Your task to perform on an android device: Add razer deathadder to the cart on bestbuy.com Image 0: 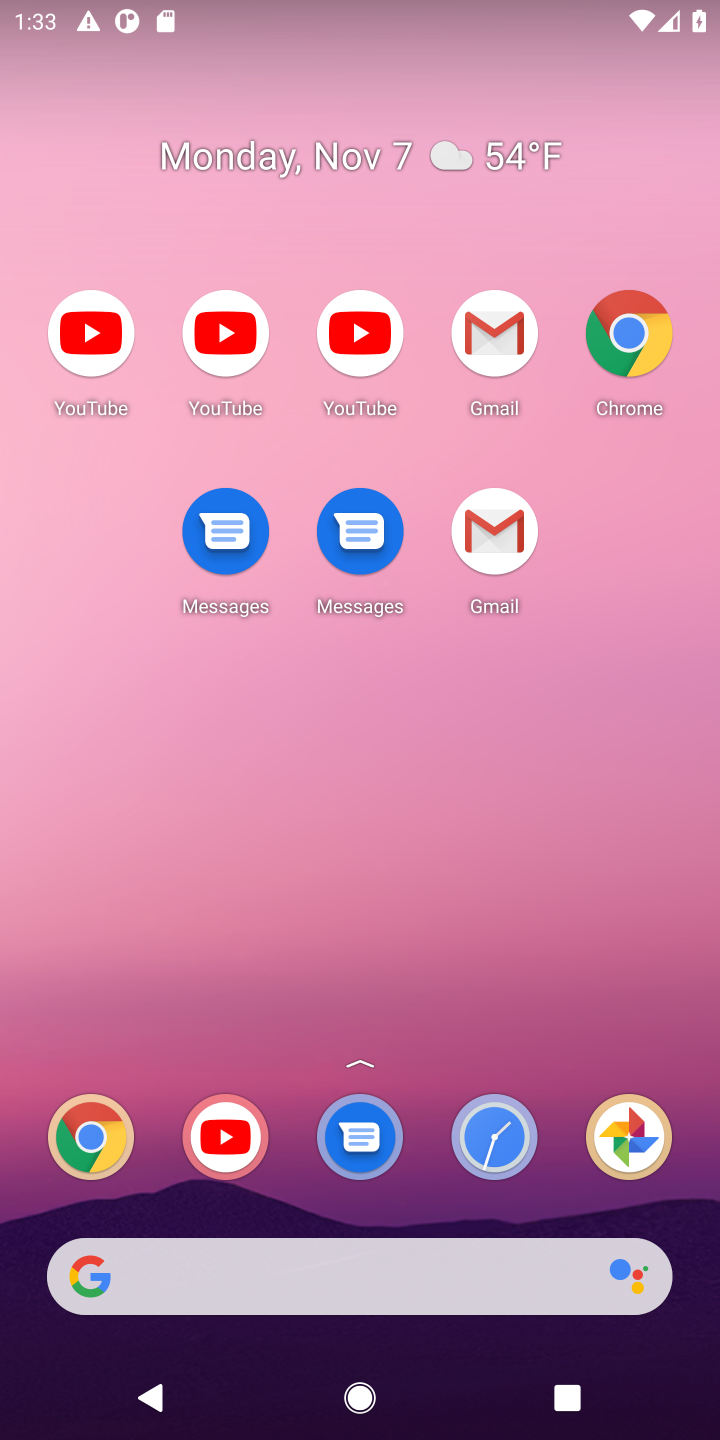
Step 0: drag from (431, 1108) to (436, 94)
Your task to perform on an android device: Add razer deathadder to the cart on bestbuy.com Image 1: 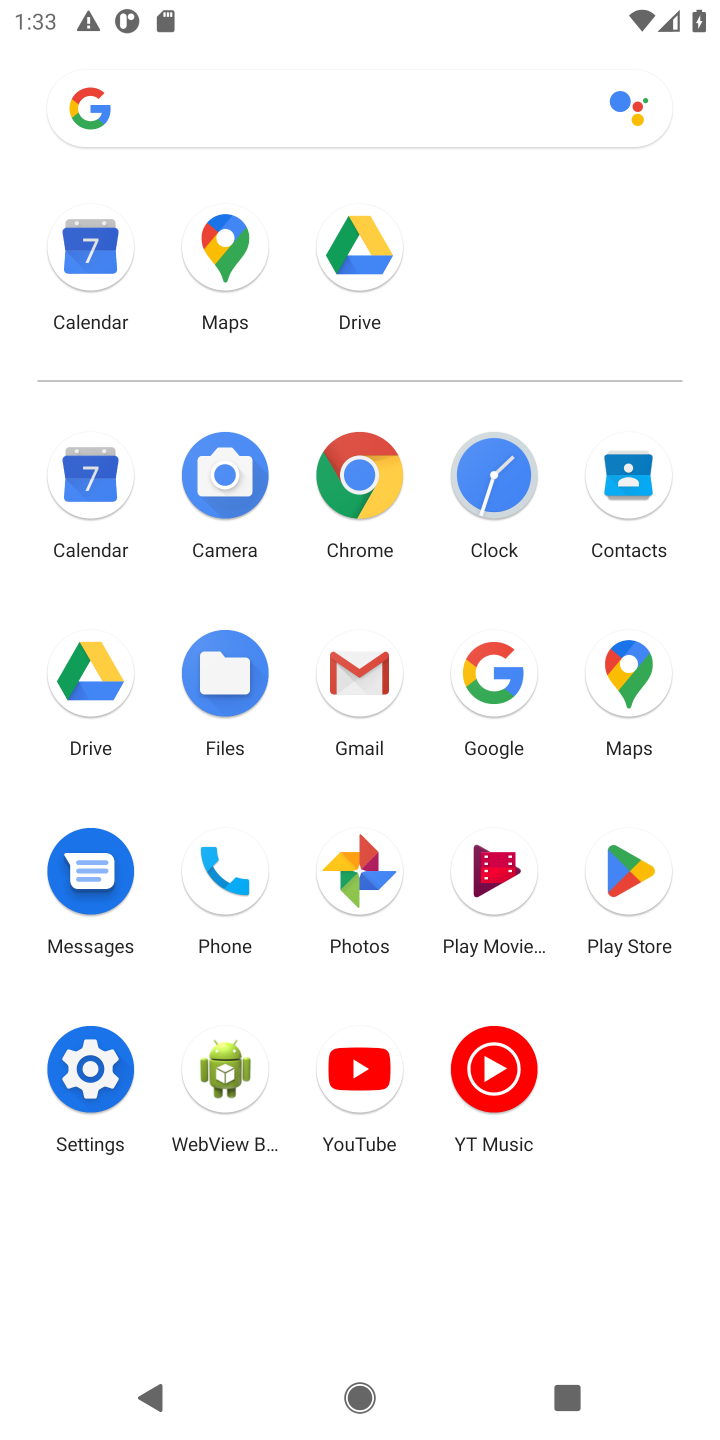
Step 1: click (358, 482)
Your task to perform on an android device: Add razer deathadder to the cart on bestbuy.com Image 2: 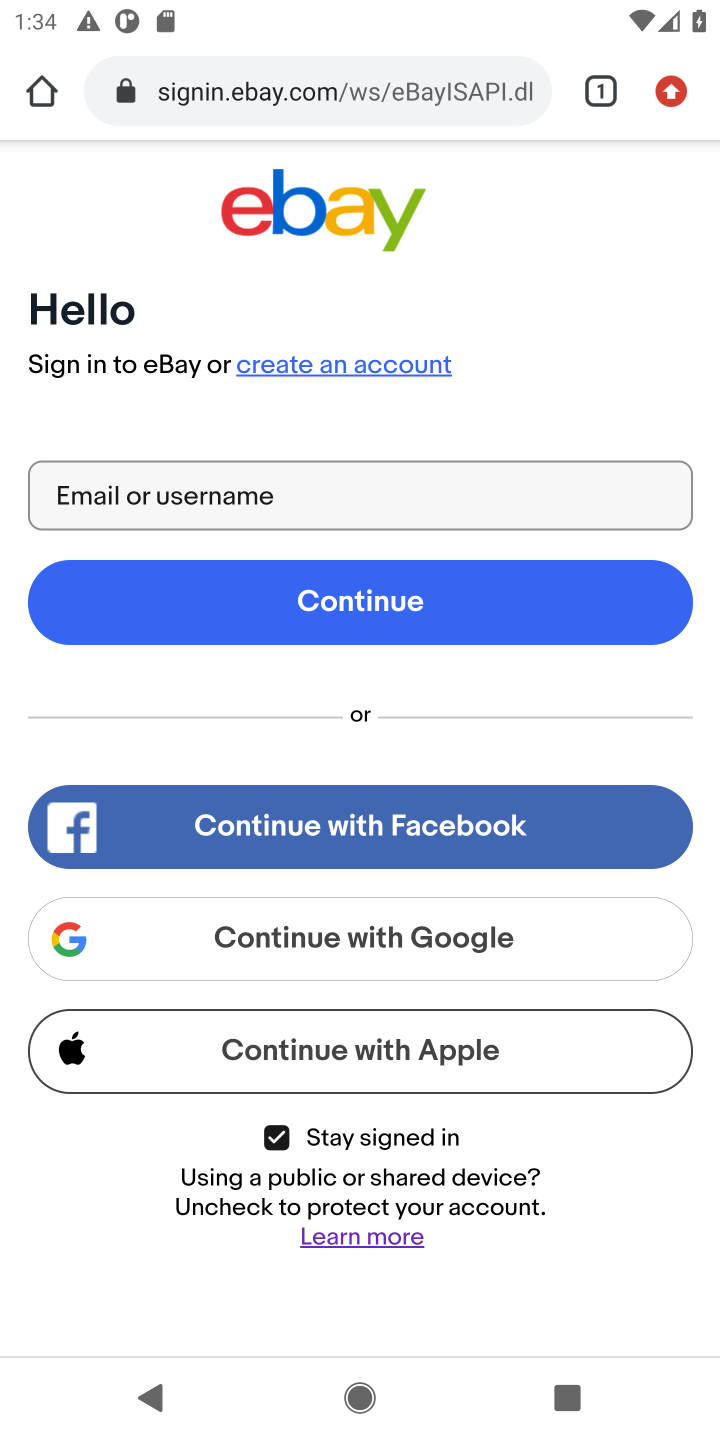
Step 2: click (452, 88)
Your task to perform on an android device: Add razer deathadder to the cart on bestbuy.com Image 3: 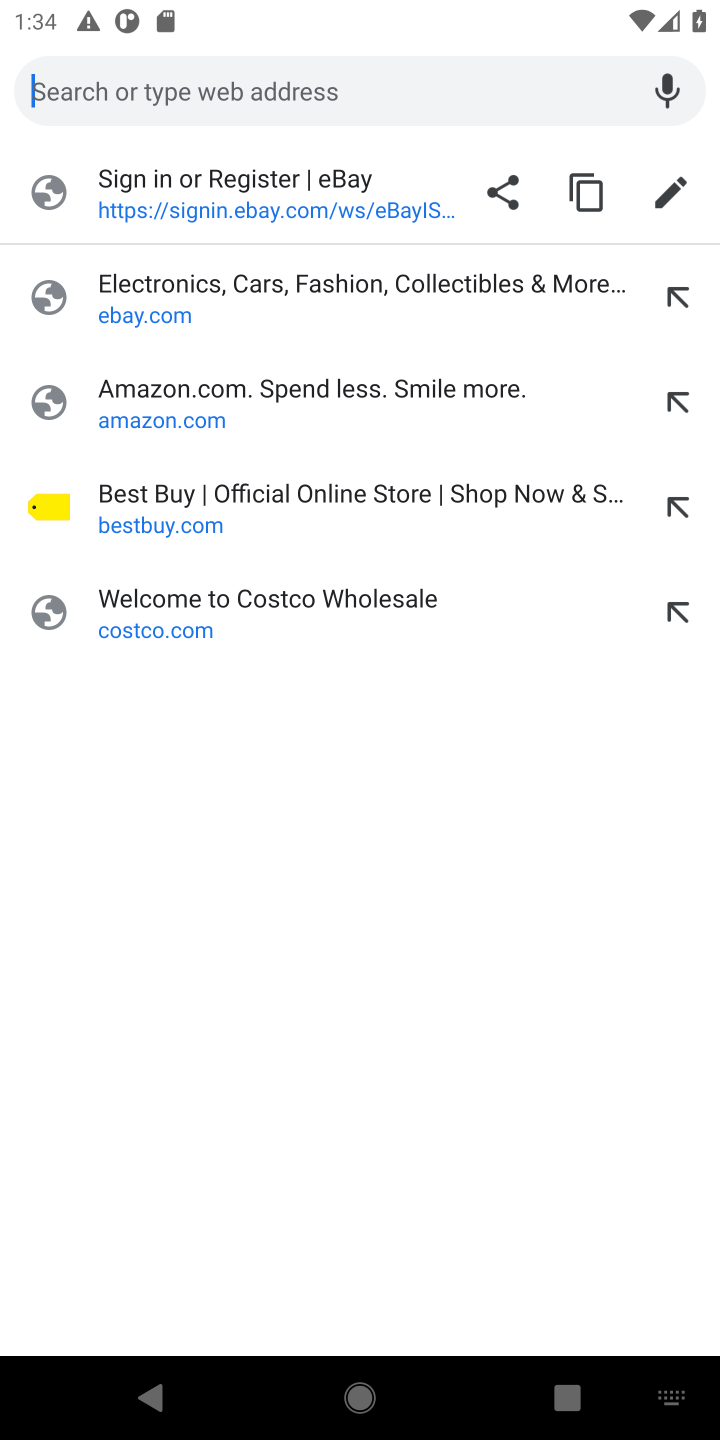
Step 3: type "bestbuy.com"
Your task to perform on an android device: Add razer deathadder to the cart on bestbuy.com Image 4: 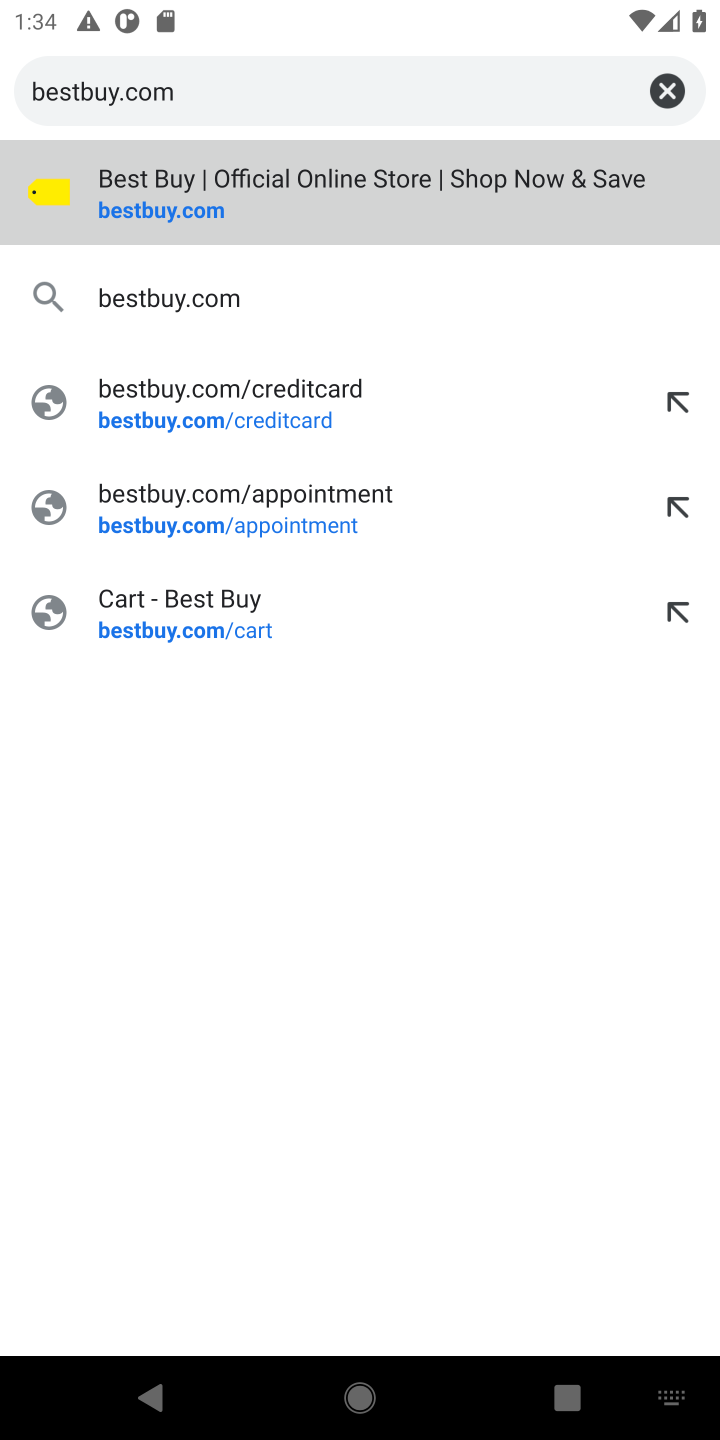
Step 4: press enter
Your task to perform on an android device: Add razer deathadder to the cart on bestbuy.com Image 5: 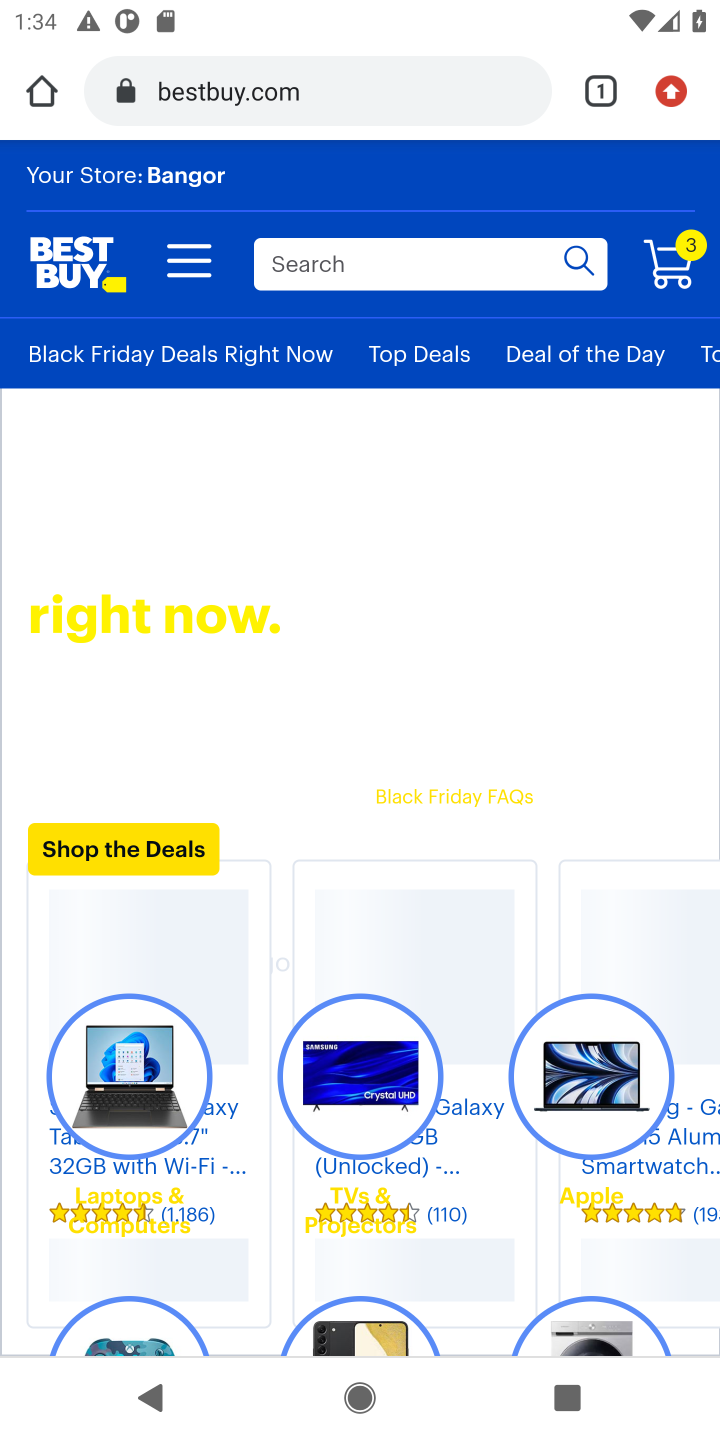
Step 5: click (463, 273)
Your task to perform on an android device: Add razer deathadder to the cart on bestbuy.com Image 6: 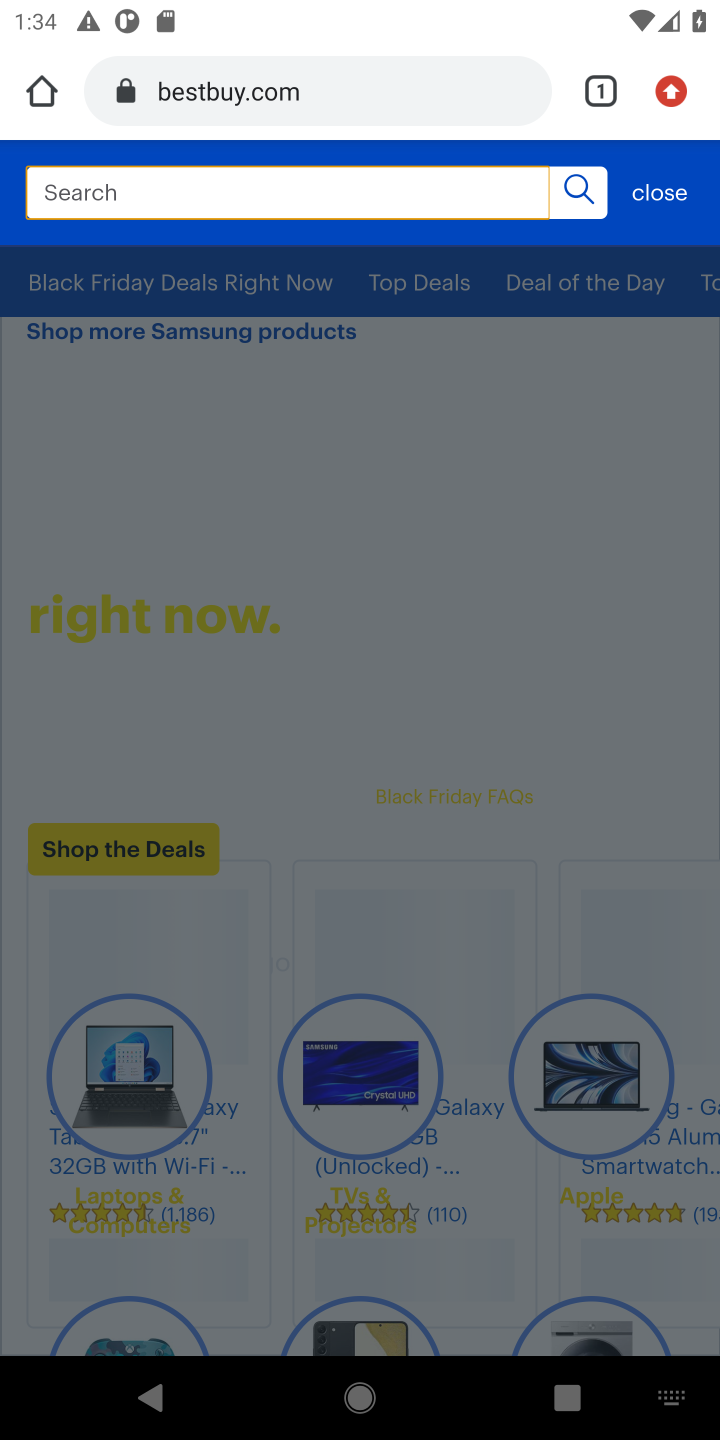
Step 6: type "razer deathadder"
Your task to perform on an android device: Add razer deathadder to the cart on bestbuy.com Image 7: 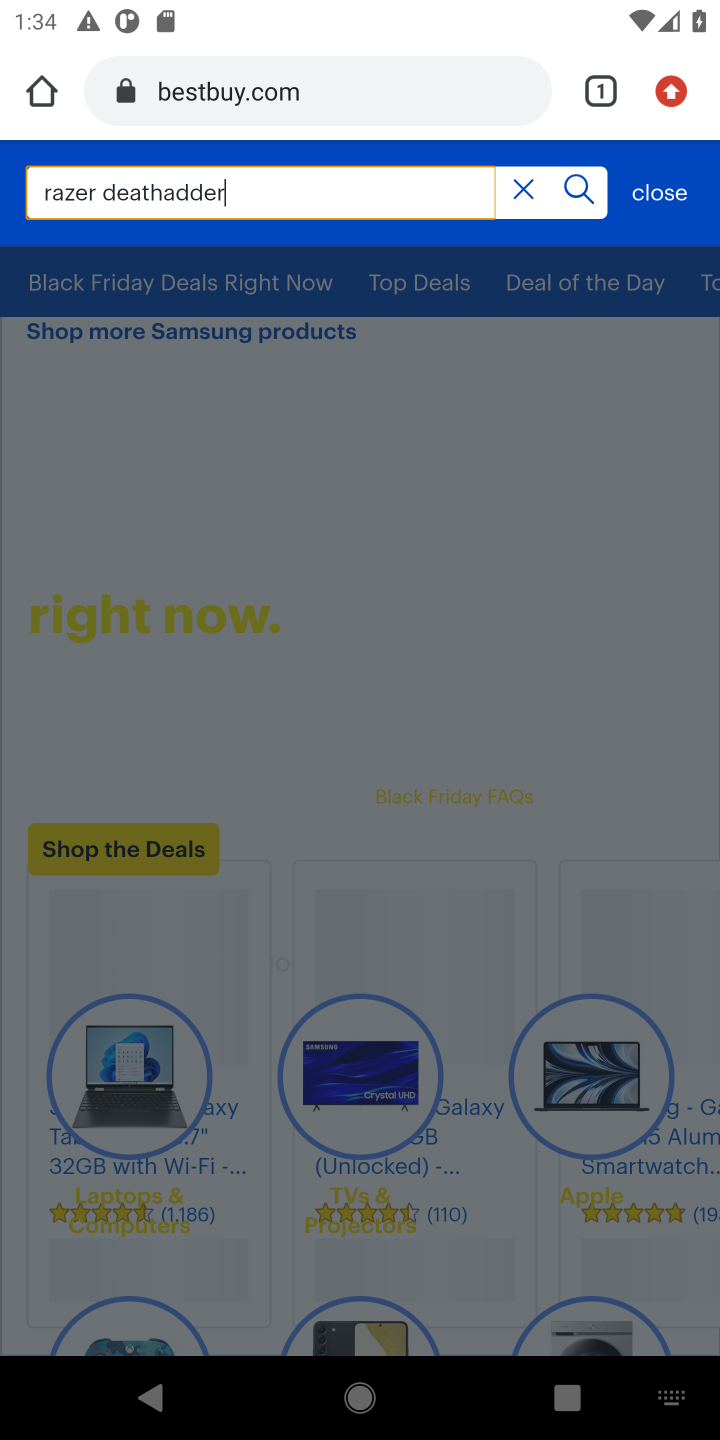
Step 7: press enter
Your task to perform on an android device: Add razer deathadder to the cart on bestbuy.com Image 8: 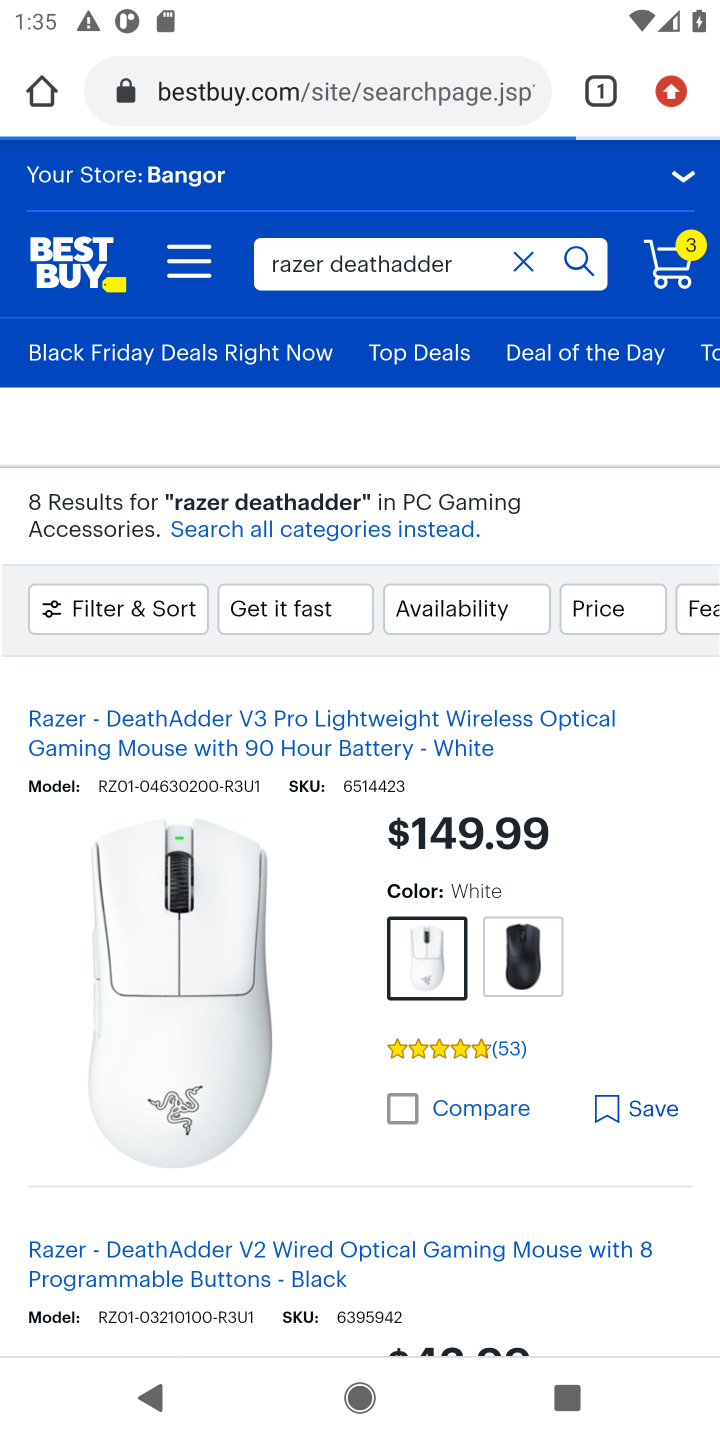
Step 8: drag from (324, 1150) to (306, 675)
Your task to perform on an android device: Add razer deathadder to the cart on bestbuy.com Image 9: 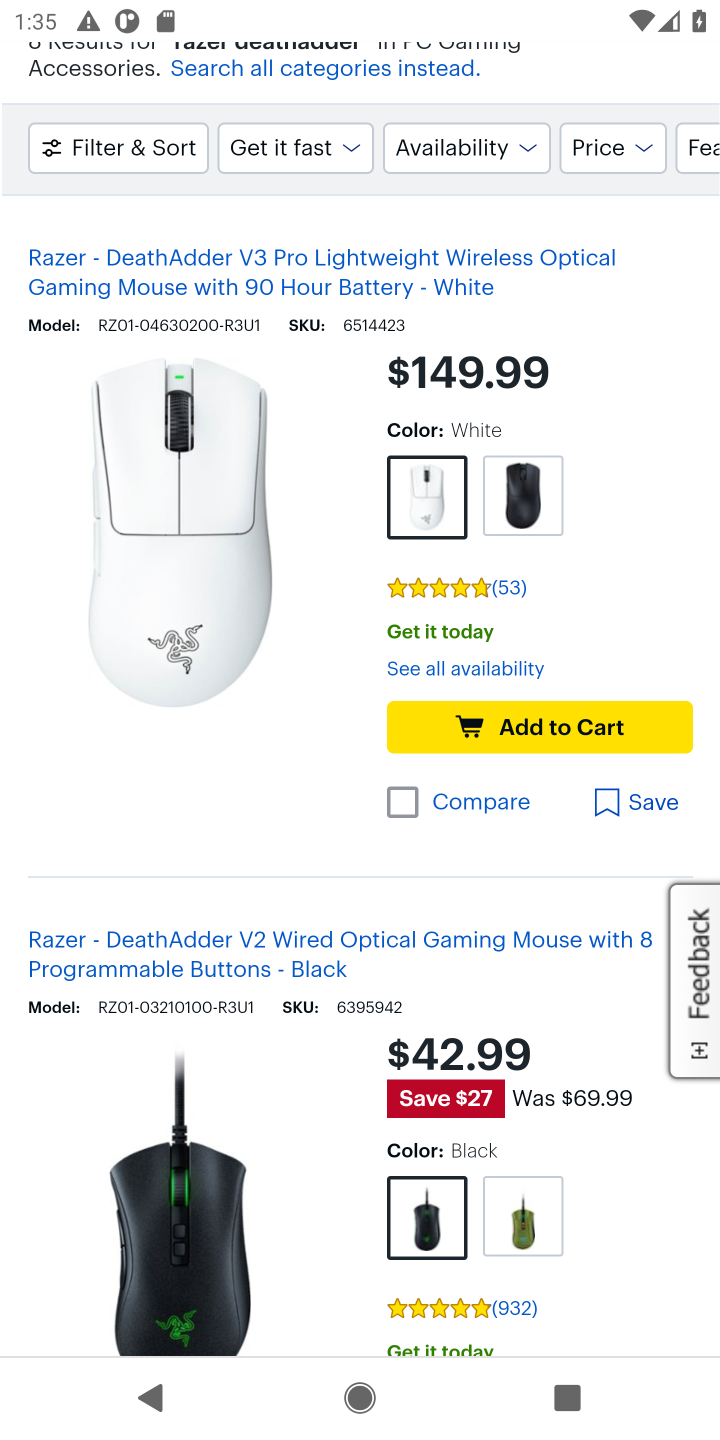
Step 9: click (545, 714)
Your task to perform on an android device: Add razer deathadder to the cart on bestbuy.com Image 10: 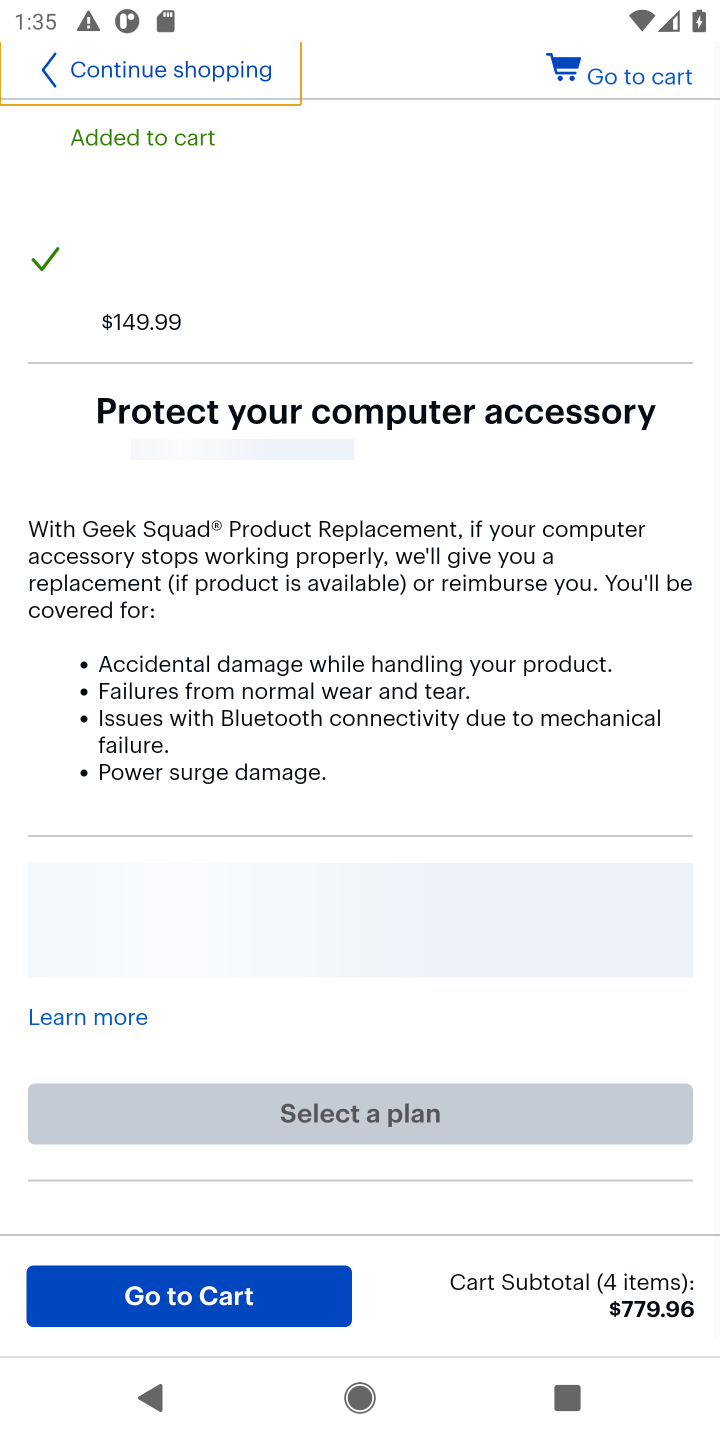
Step 10: task complete